Your task to perform on an android device: Add usb-c to the cart on costco.com Image 0: 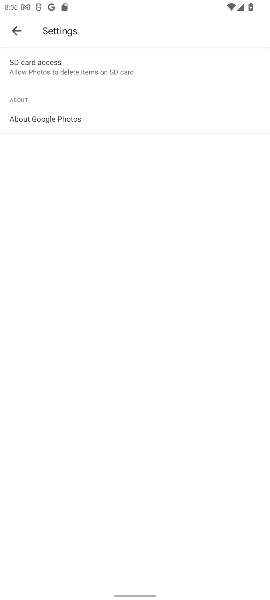
Step 0: press home button
Your task to perform on an android device: Add usb-c to the cart on costco.com Image 1: 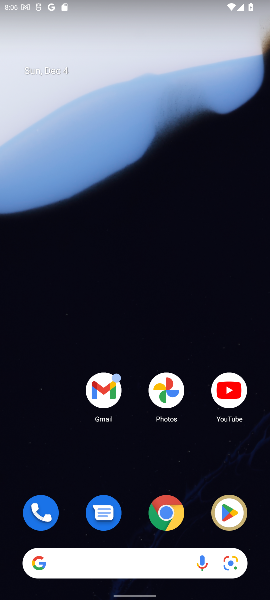
Step 1: click (158, 522)
Your task to perform on an android device: Add usb-c to the cart on costco.com Image 2: 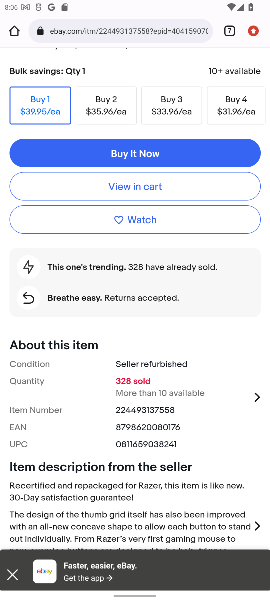
Step 2: click (231, 28)
Your task to perform on an android device: Add usb-c to the cart on costco.com Image 3: 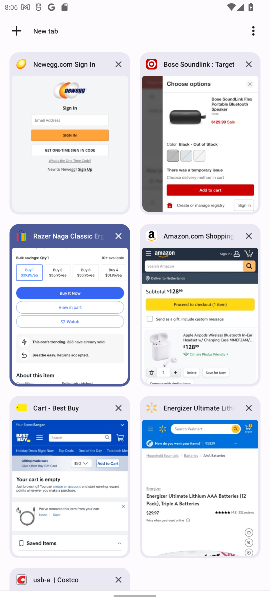
Step 3: click (74, 584)
Your task to perform on an android device: Add usb-c to the cart on costco.com Image 4: 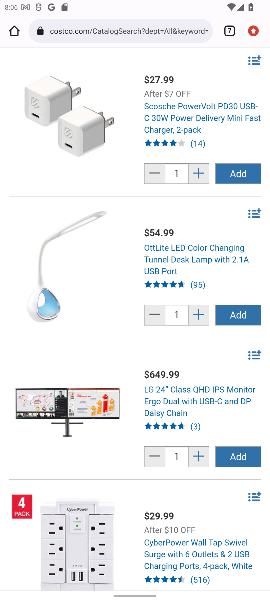
Step 4: drag from (204, 61) to (184, 395)
Your task to perform on an android device: Add usb-c to the cart on costco.com Image 5: 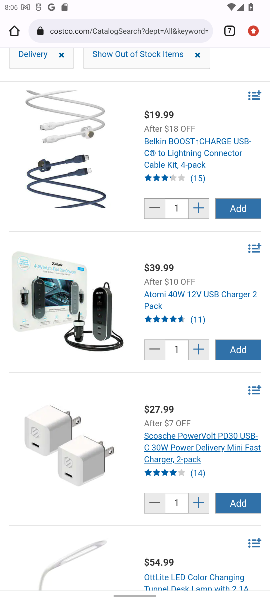
Step 5: drag from (203, 100) to (136, 359)
Your task to perform on an android device: Add usb-c to the cart on costco.com Image 6: 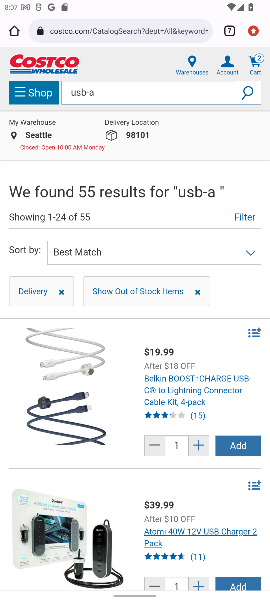
Step 6: click (195, 97)
Your task to perform on an android device: Add usb-c to the cart on costco.com Image 7: 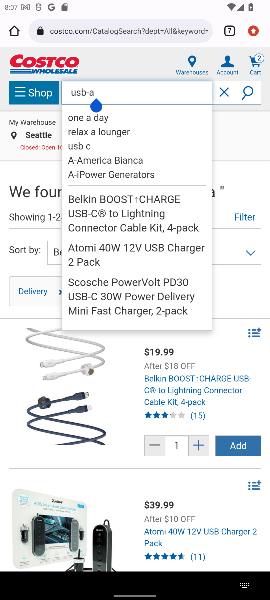
Step 7: click (226, 89)
Your task to perform on an android device: Add usb-c to the cart on costco.com Image 8: 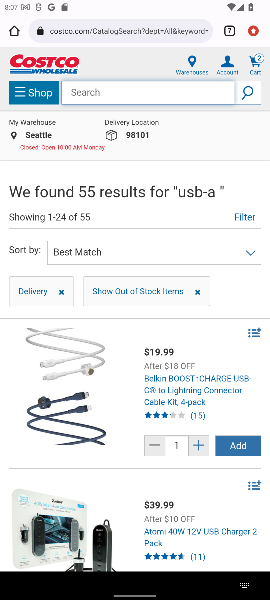
Step 8: type "usb-c"
Your task to perform on an android device: Add usb-c to the cart on costco.com Image 9: 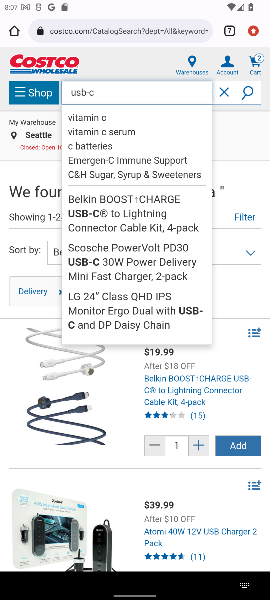
Step 9: click (249, 88)
Your task to perform on an android device: Add usb-c to the cart on costco.com Image 10: 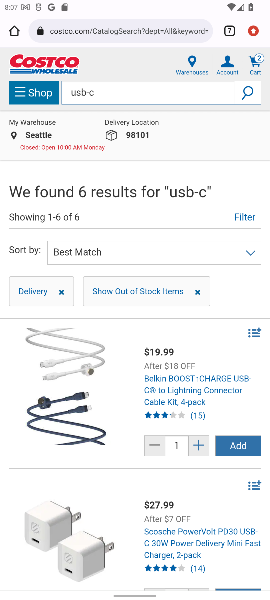
Step 10: drag from (80, 501) to (152, 126)
Your task to perform on an android device: Add usb-c to the cart on costco.com Image 11: 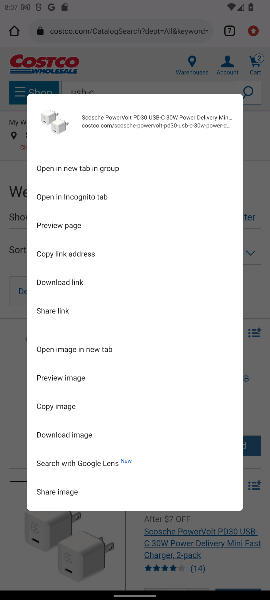
Step 11: click (267, 216)
Your task to perform on an android device: Add usb-c to the cart on costco.com Image 12: 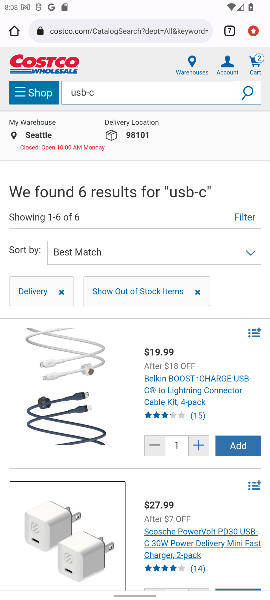
Step 12: task complete